Your task to perform on an android device: Google the capital of Chile Image 0: 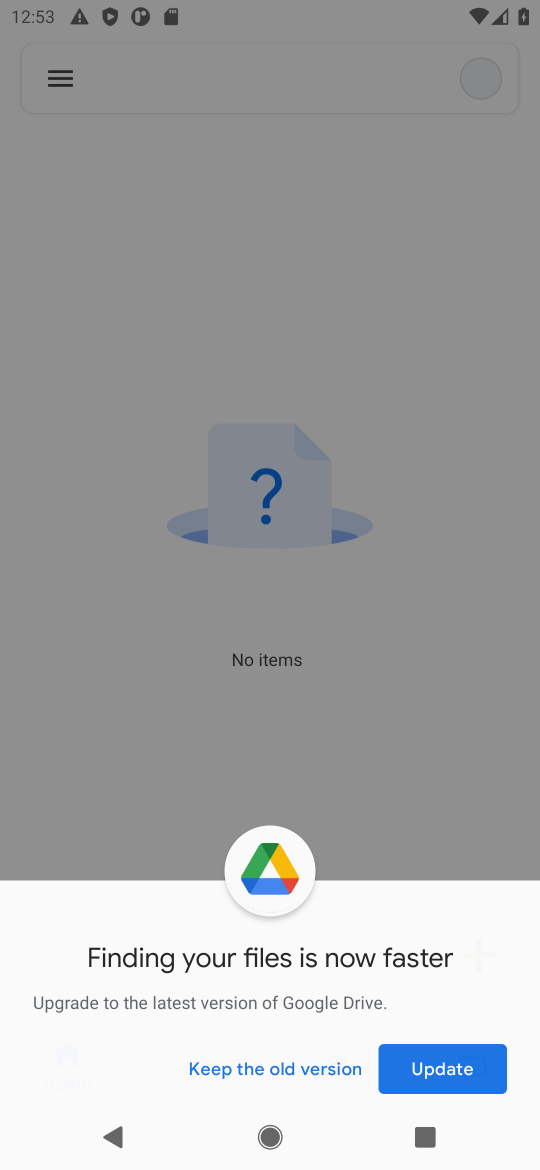
Step 0: drag from (233, 902) to (11, 416)
Your task to perform on an android device: Google the capital of Chile Image 1: 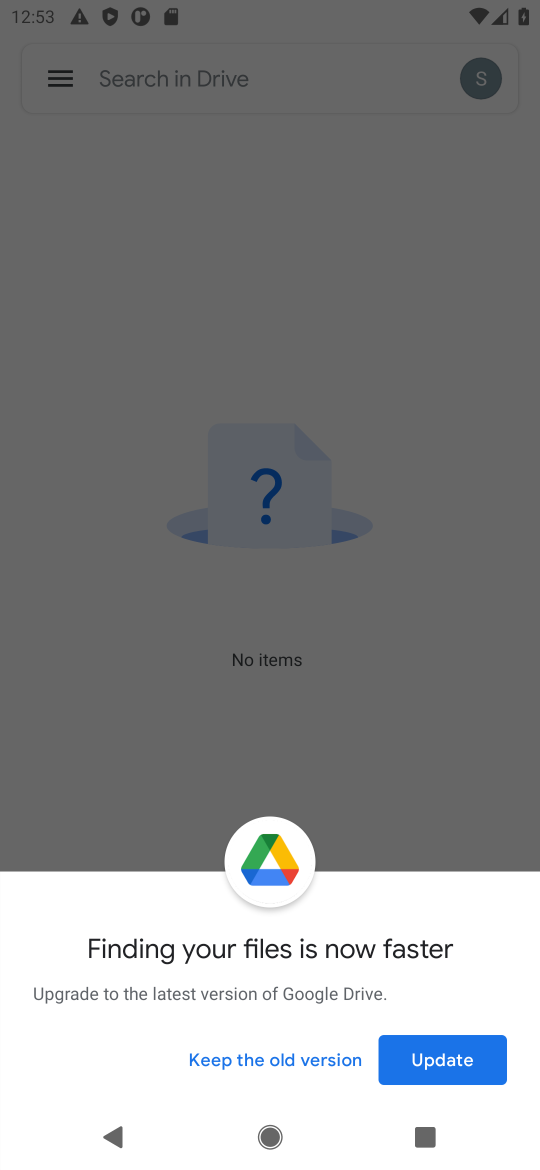
Step 1: press home button
Your task to perform on an android device: Google the capital of Chile Image 2: 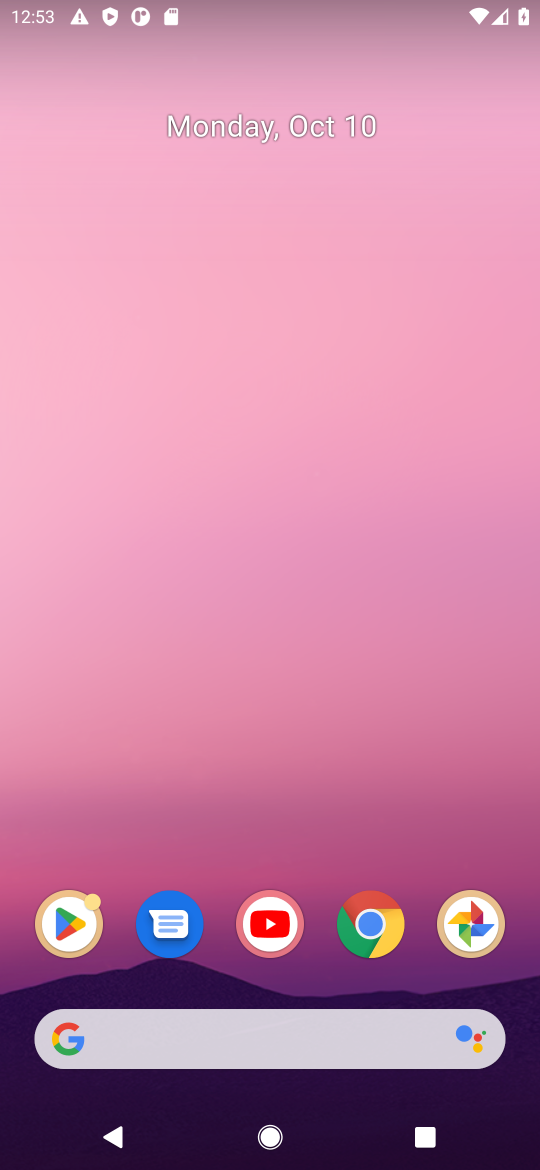
Step 2: drag from (277, 979) to (349, 59)
Your task to perform on an android device: Google the capital of Chile Image 3: 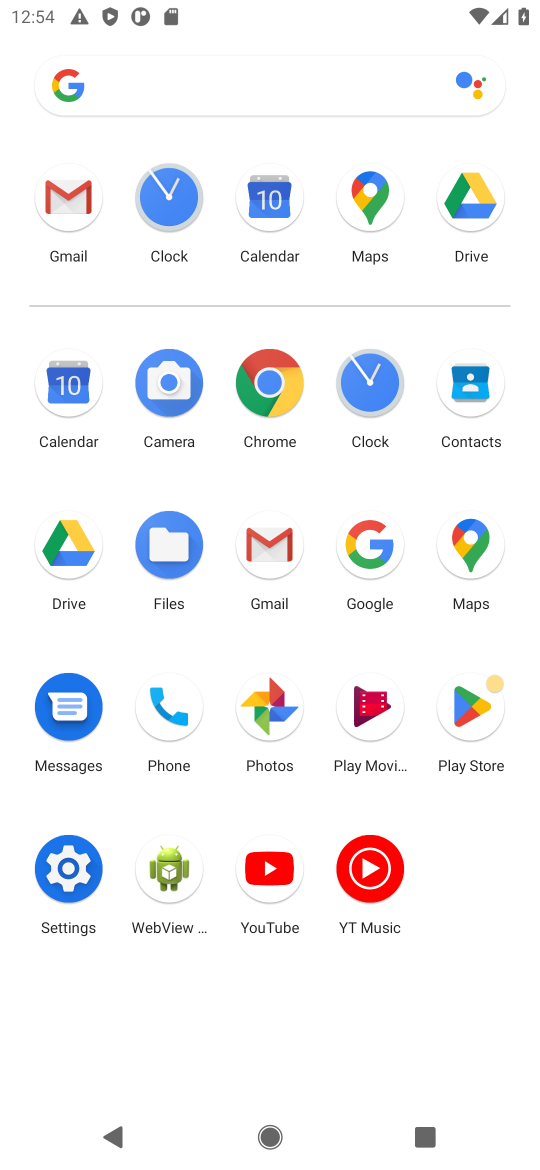
Step 3: click (254, 390)
Your task to perform on an android device: Google the capital of Chile Image 4: 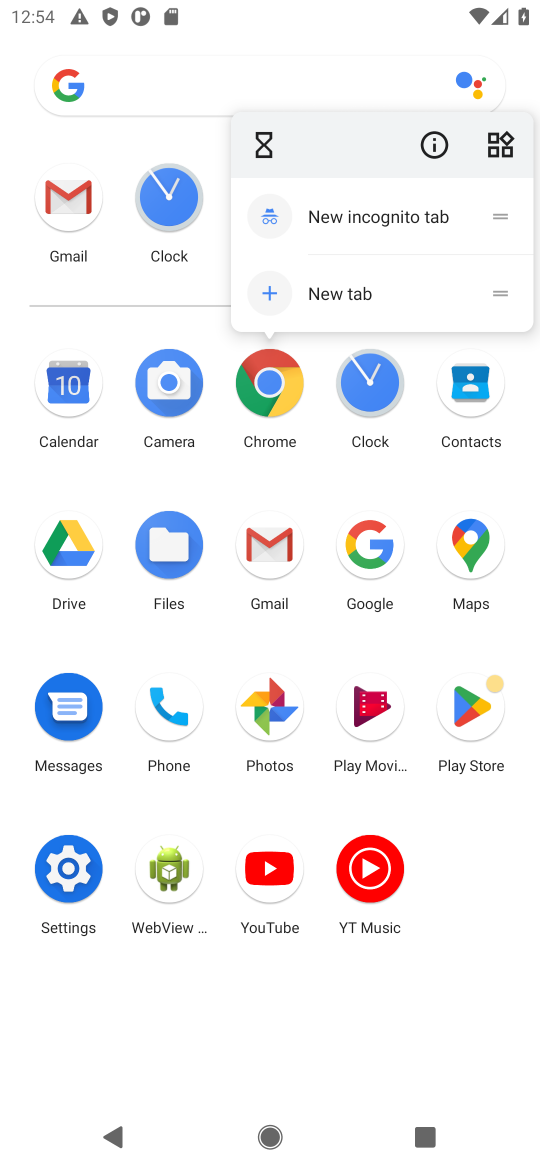
Step 4: click (297, 399)
Your task to perform on an android device: Google the capital of Chile Image 5: 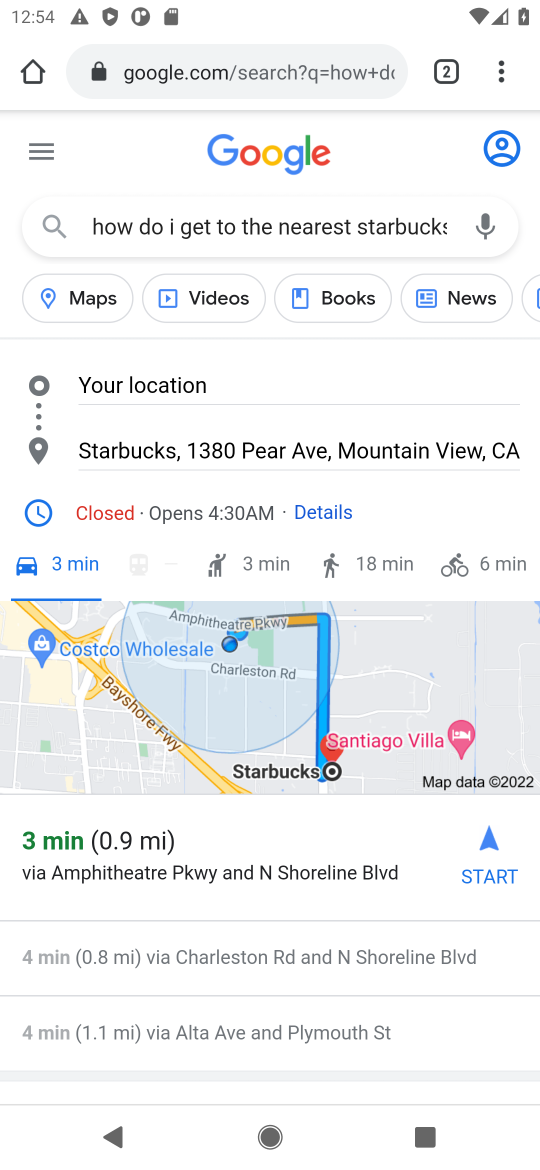
Step 5: click (304, 82)
Your task to perform on an android device: Google the capital of Chile Image 6: 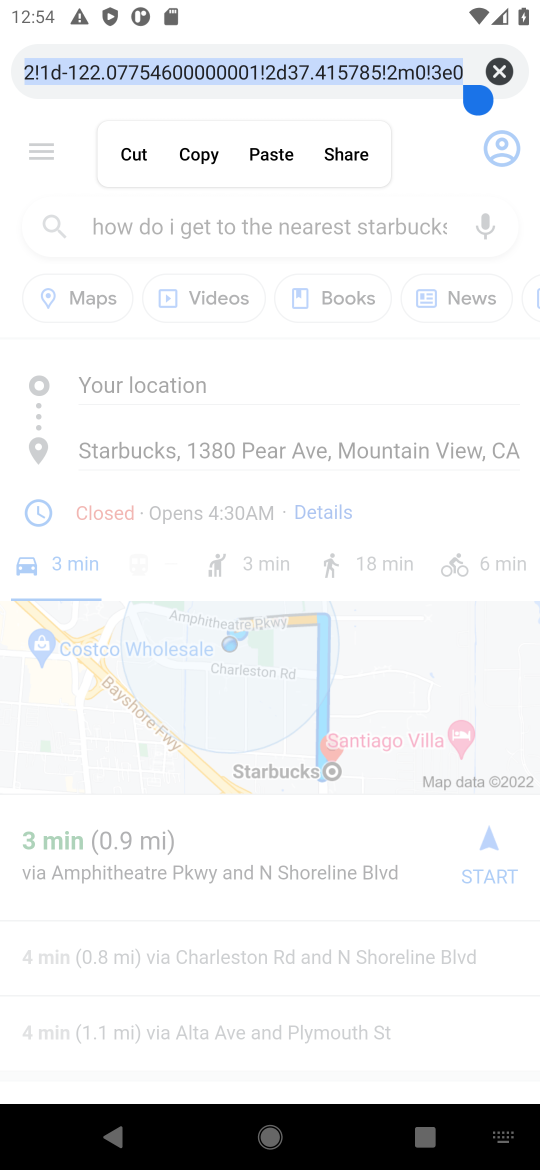
Step 6: click (507, 76)
Your task to perform on an android device: Google the capital of Chile Image 7: 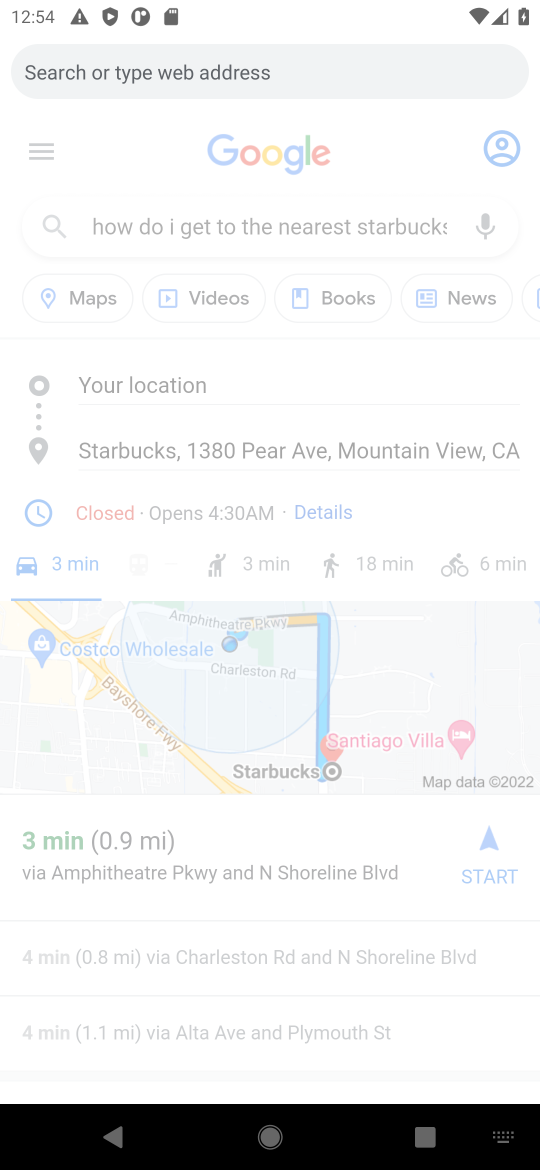
Step 7: type "Google the capital of Chile"
Your task to perform on an android device: Google the capital of Chile Image 8: 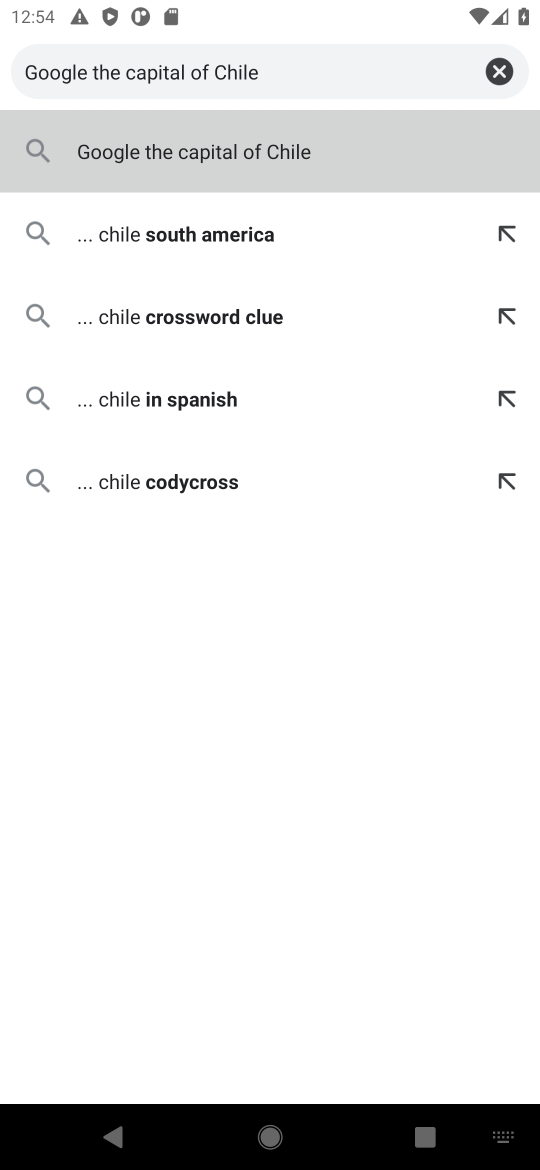
Step 8: press enter
Your task to perform on an android device: Google the capital of Chile Image 9: 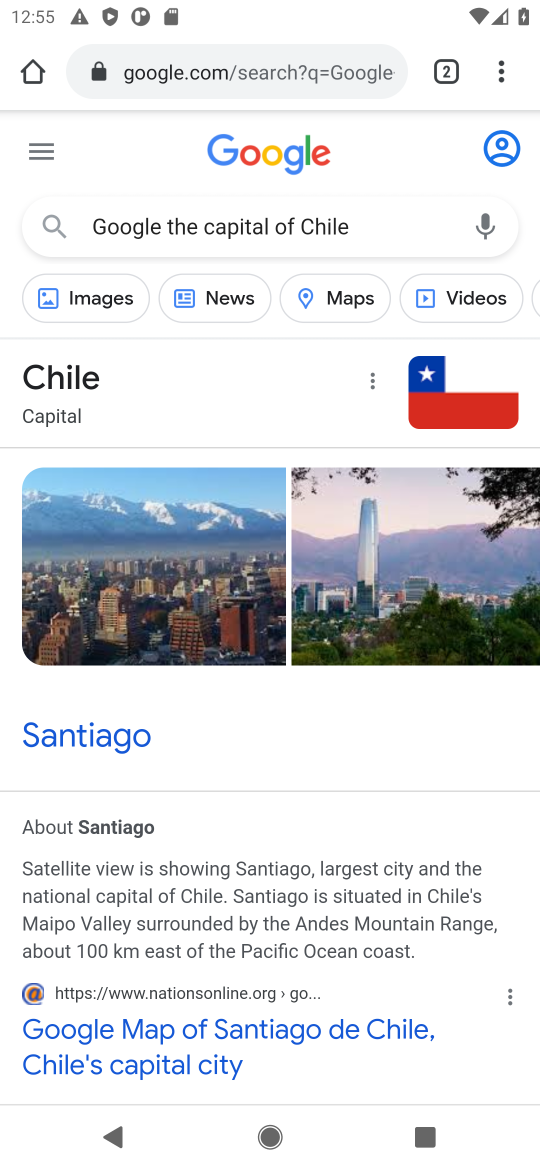
Step 9: task complete